Your task to perform on an android device: Open sound settings Image 0: 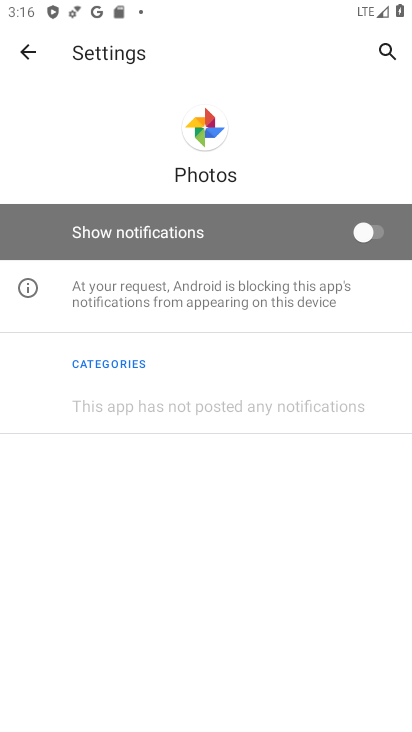
Step 0: press home button
Your task to perform on an android device: Open sound settings Image 1: 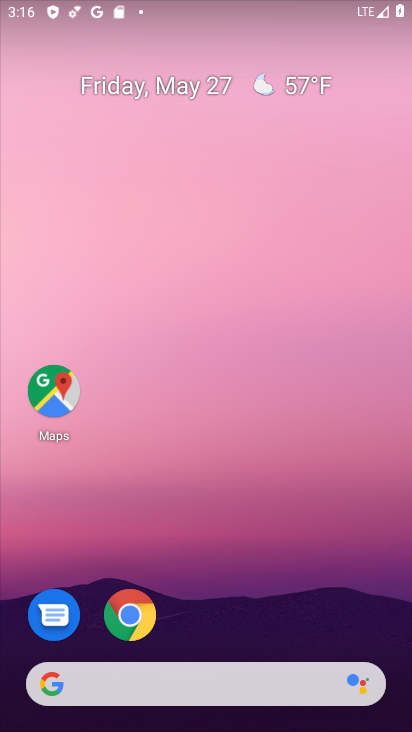
Step 1: drag from (242, 621) to (233, 49)
Your task to perform on an android device: Open sound settings Image 2: 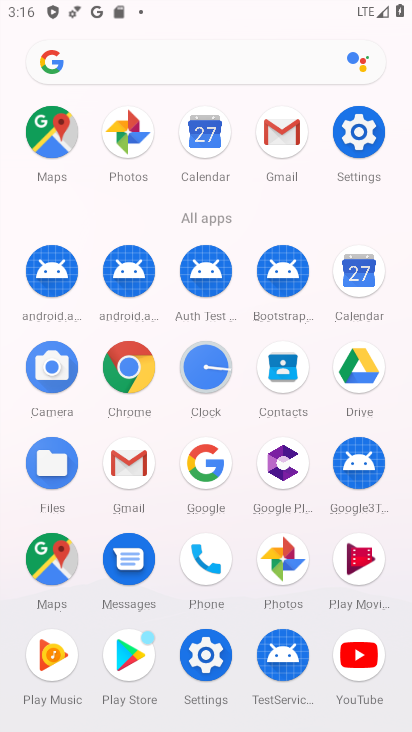
Step 2: click (367, 137)
Your task to perform on an android device: Open sound settings Image 3: 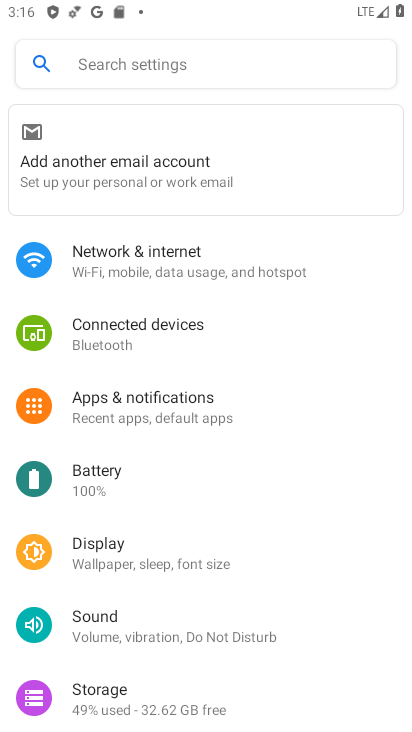
Step 3: click (122, 618)
Your task to perform on an android device: Open sound settings Image 4: 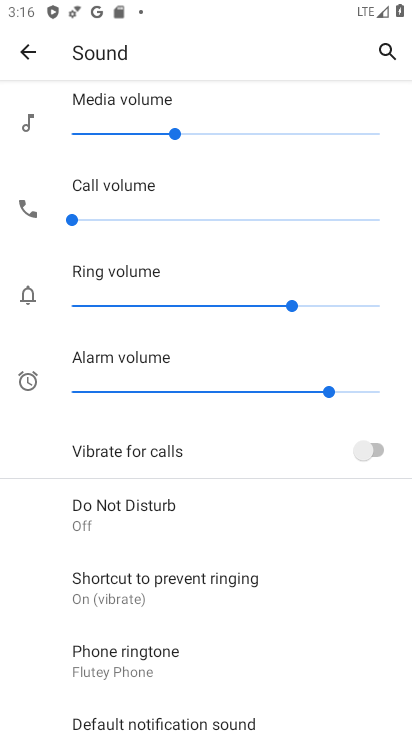
Step 4: task complete